Your task to perform on an android device: turn notification dots off Image 0: 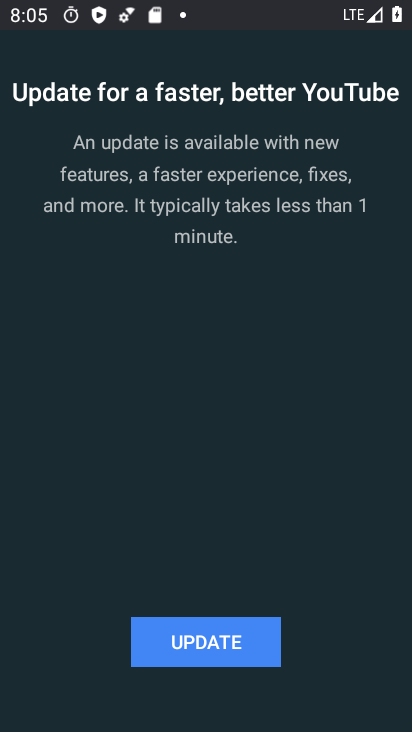
Step 0: drag from (377, 634) to (310, 162)
Your task to perform on an android device: turn notification dots off Image 1: 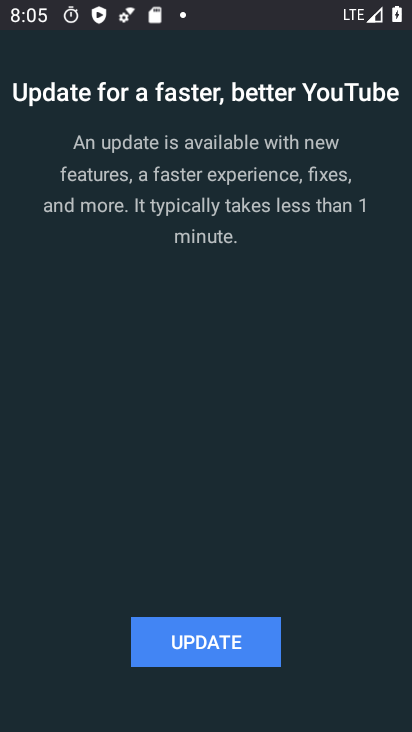
Step 1: press back button
Your task to perform on an android device: turn notification dots off Image 2: 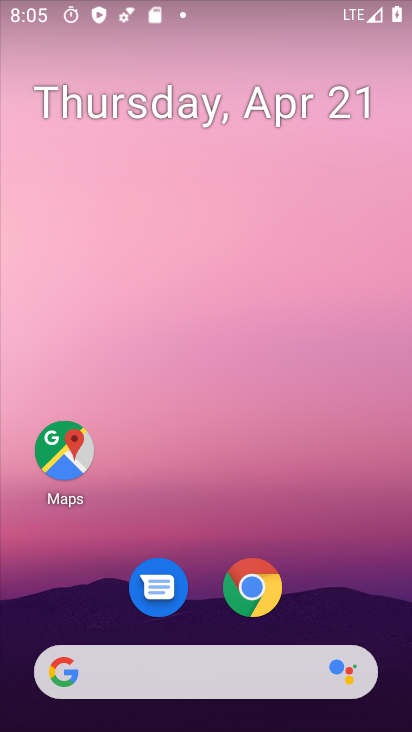
Step 2: drag from (394, 632) to (371, 178)
Your task to perform on an android device: turn notification dots off Image 3: 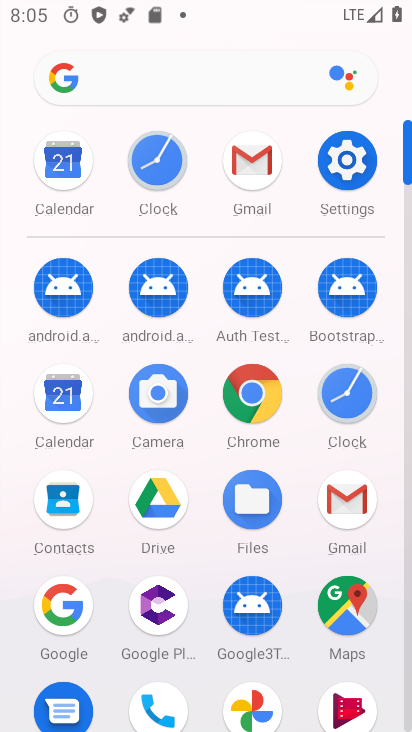
Step 3: click (345, 168)
Your task to perform on an android device: turn notification dots off Image 4: 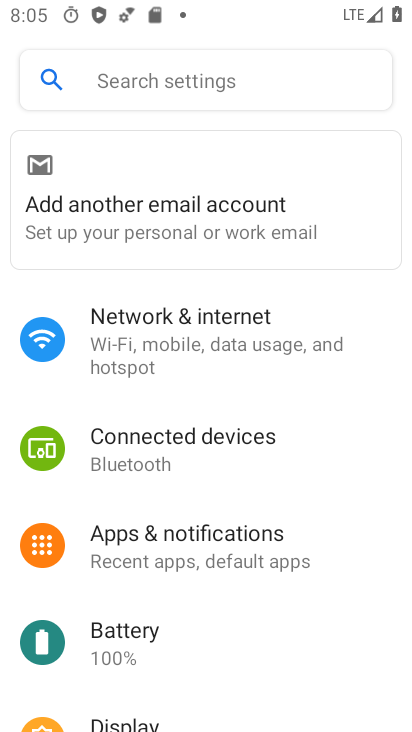
Step 4: click (179, 545)
Your task to perform on an android device: turn notification dots off Image 5: 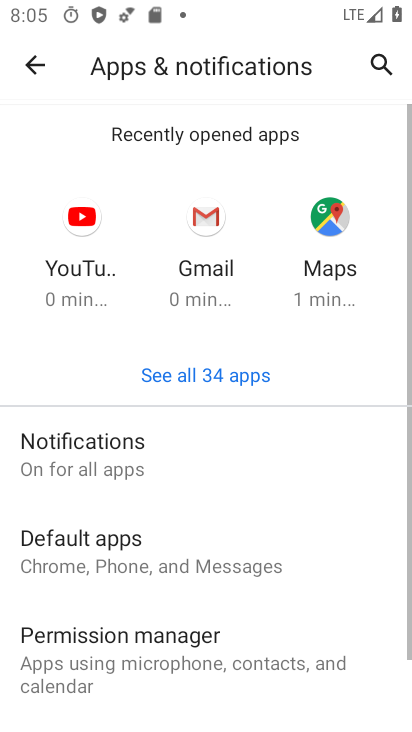
Step 5: click (111, 443)
Your task to perform on an android device: turn notification dots off Image 6: 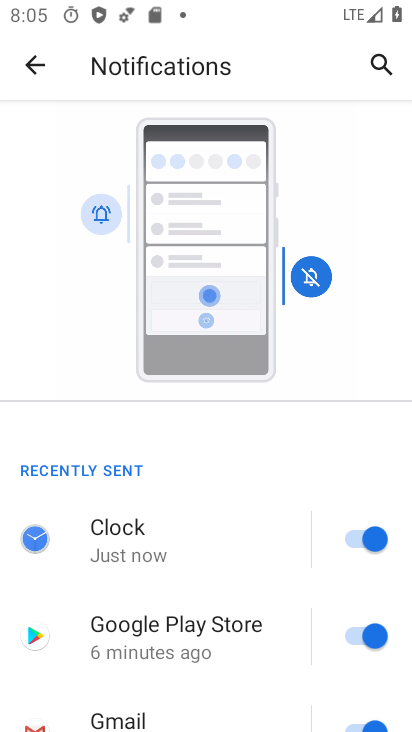
Step 6: drag from (282, 353) to (285, 209)
Your task to perform on an android device: turn notification dots off Image 7: 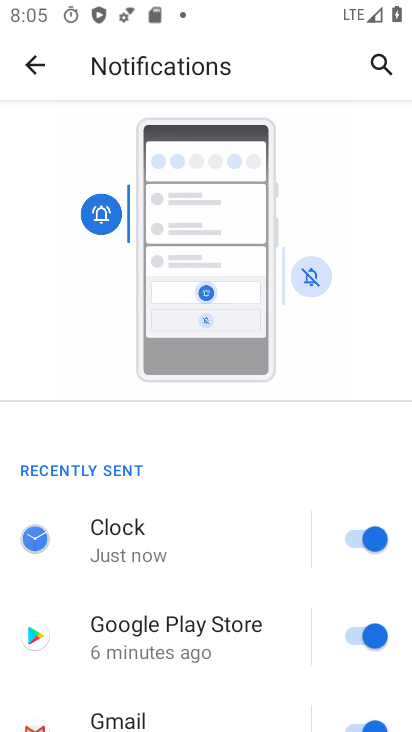
Step 7: drag from (267, 681) to (260, 255)
Your task to perform on an android device: turn notification dots off Image 8: 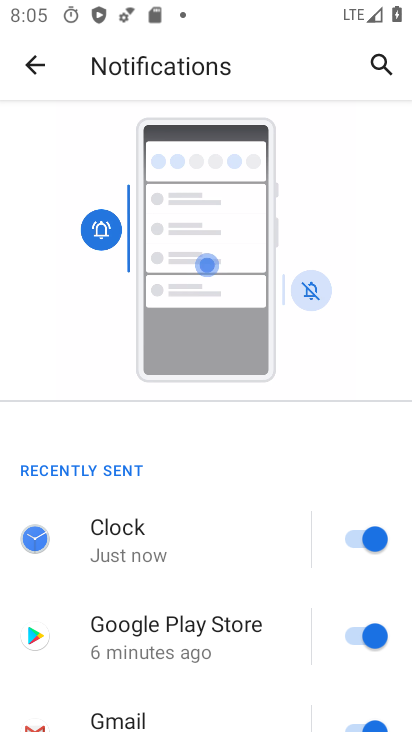
Step 8: drag from (307, 540) to (311, 337)
Your task to perform on an android device: turn notification dots off Image 9: 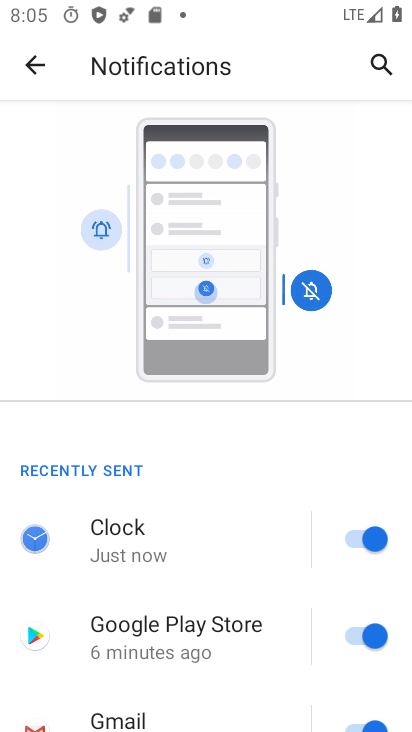
Step 9: drag from (296, 696) to (325, 210)
Your task to perform on an android device: turn notification dots off Image 10: 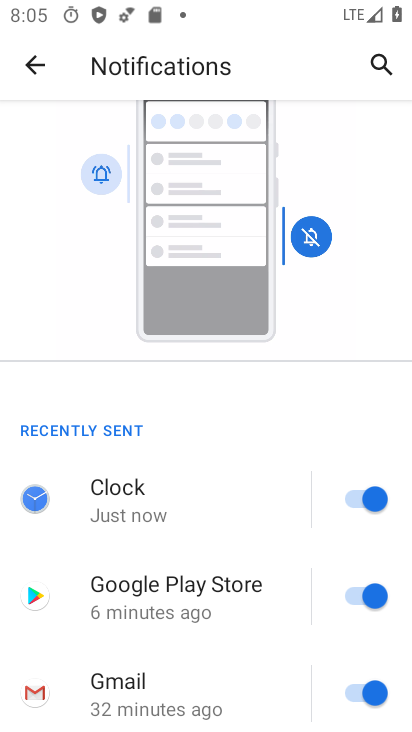
Step 10: drag from (306, 222) to (308, 158)
Your task to perform on an android device: turn notification dots off Image 11: 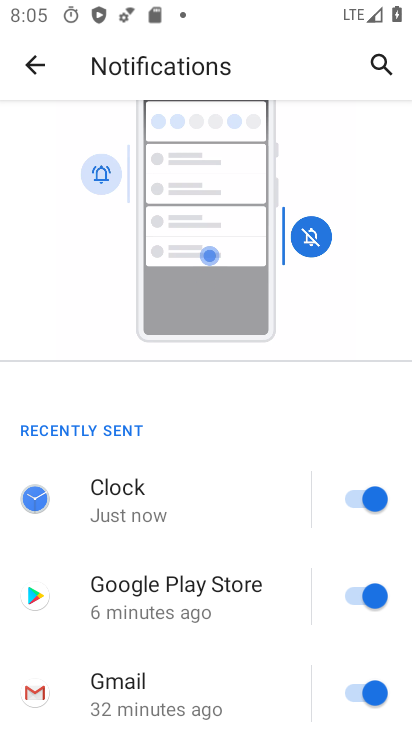
Step 11: click (303, 227)
Your task to perform on an android device: turn notification dots off Image 12: 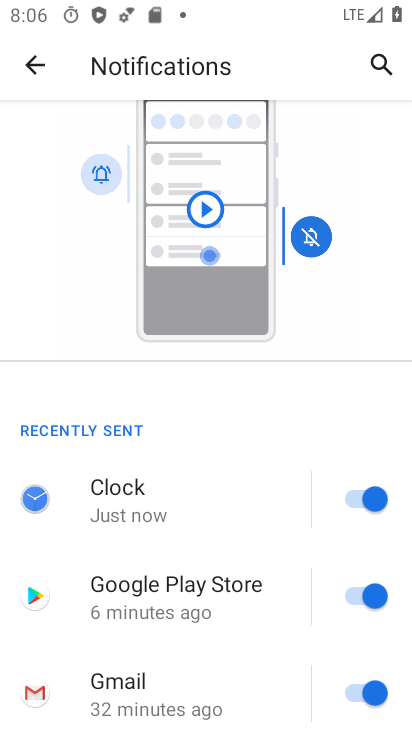
Step 12: drag from (302, 597) to (305, 284)
Your task to perform on an android device: turn notification dots off Image 13: 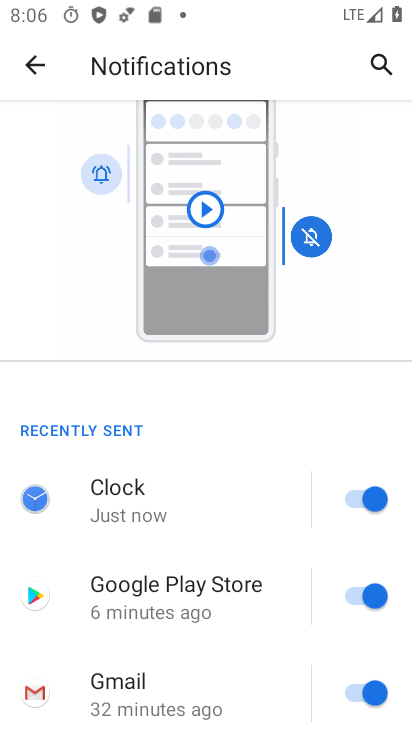
Step 13: drag from (279, 707) to (273, 331)
Your task to perform on an android device: turn notification dots off Image 14: 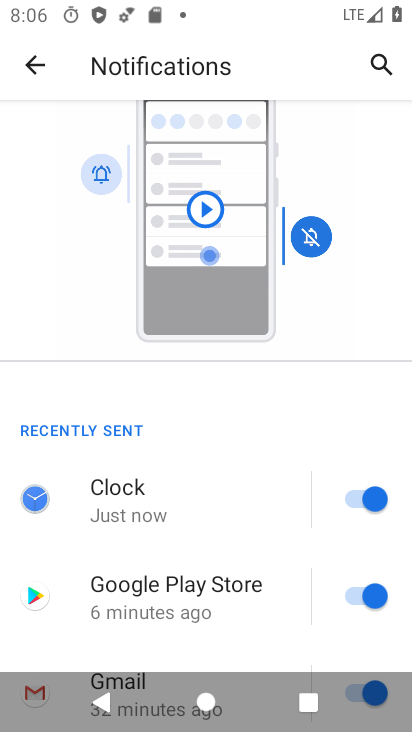
Step 14: drag from (279, 656) to (306, 246)
Your task to perform on an android device: turn notification dots off Image 15: 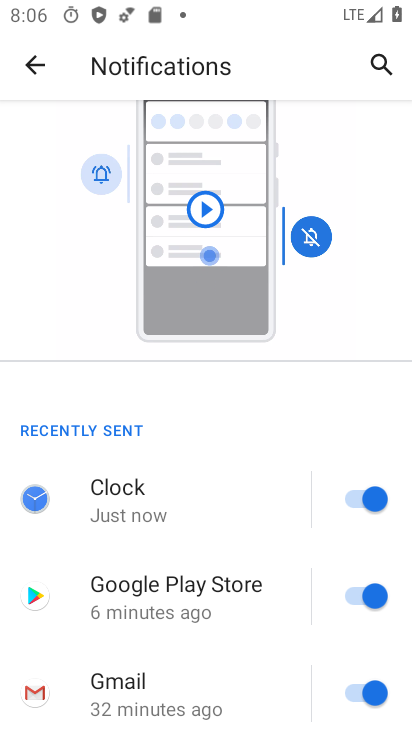
Step 15: drag from (289, 685) to (317, 267)
Your task to perform on an android device: turn notification dots off Image 16: 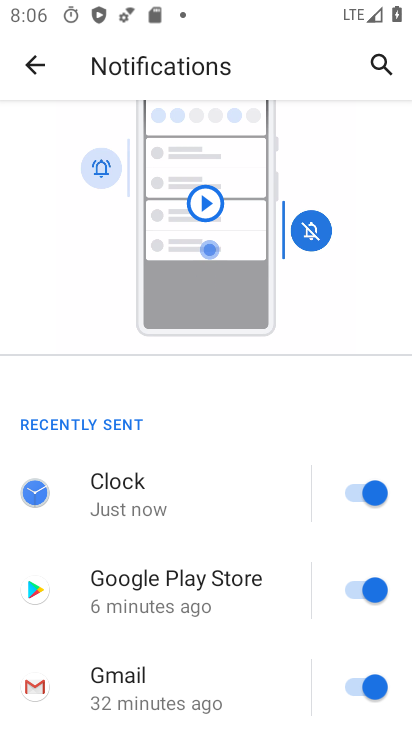
Step 16: drag from (271, 557) to (267, 288)
Your task to perform on an android device: turn notification dots off Image 17: 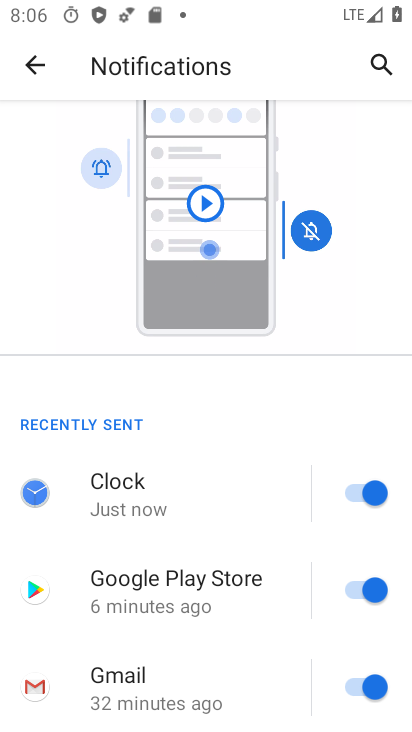
Step 17: drag from (293, 673) to (281, 160)
Your task to perform on an android device: turn notification dots off Image 18: 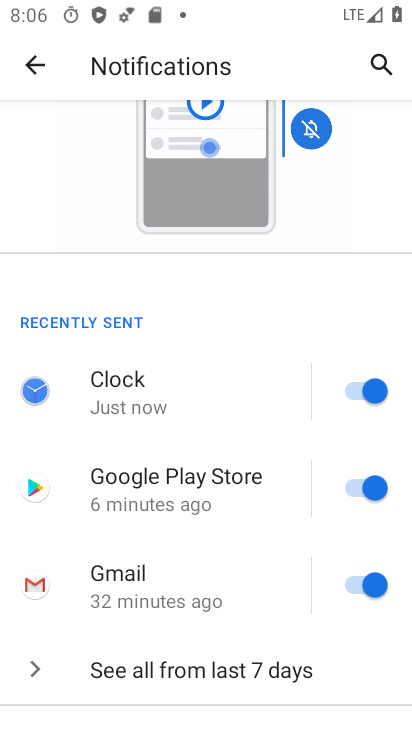
Step 18: drag from (262, 462) to (264, 278)
Your task to perform on an android device: turn notification dots off Image 19: 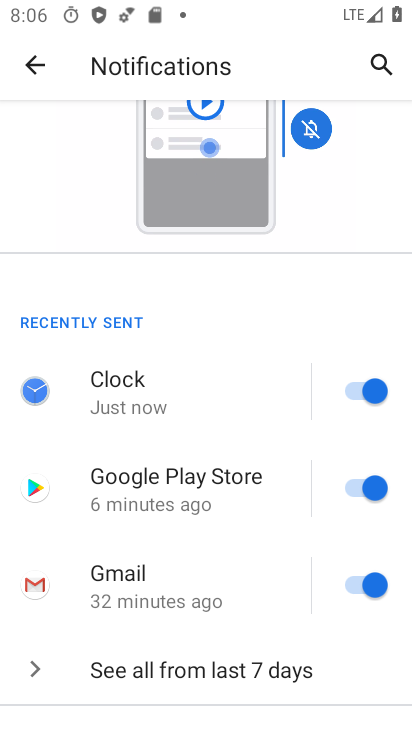
Step 19: drag from (282, 692) to (286, 264)
Your task to perform on an android device: turn notification dots off Image 20: 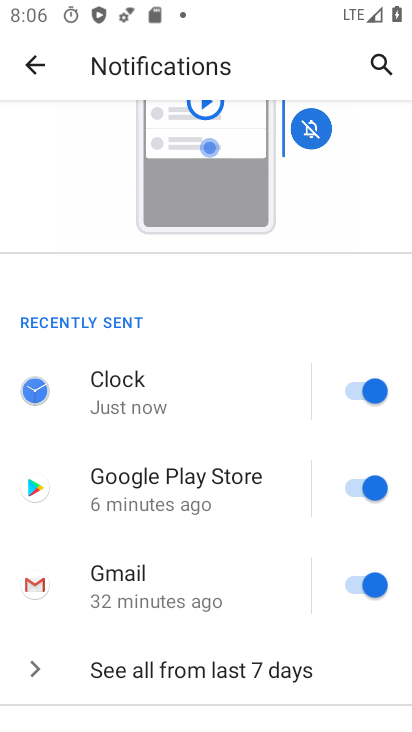
Step 20: drag from (304, 695) to (321, 324)
Your task to perform on an android device: turn notification dots off Image 21: 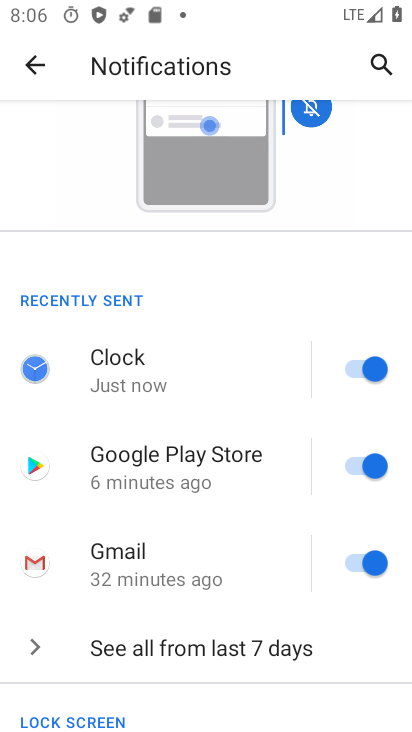
Step 21: drag from (270, 704) to (286, 189)
Your task to perform on an android device: turn notification dots off Image 22: 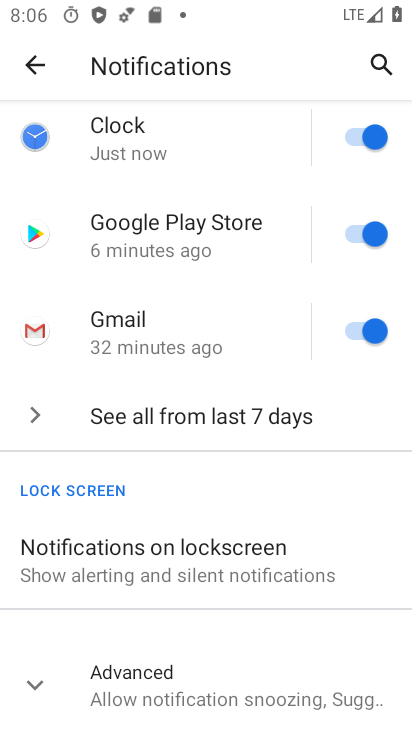
Step 22: click (97, 658)
Your task to perform on an android device: turn notification dots off Image 23: 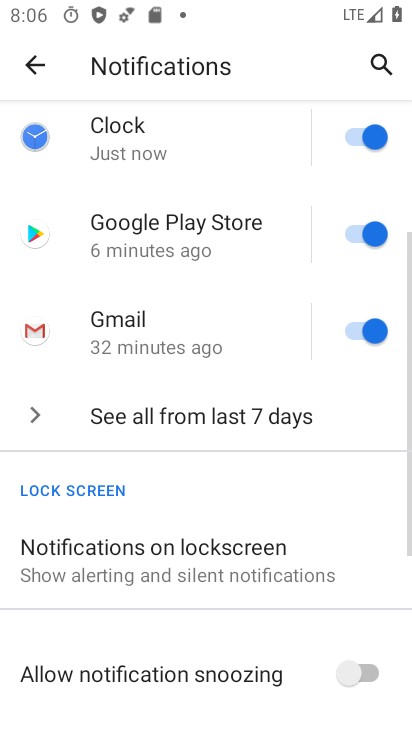
Step 23: task complete